Your task to perform on an android device: check data usage Image 0: 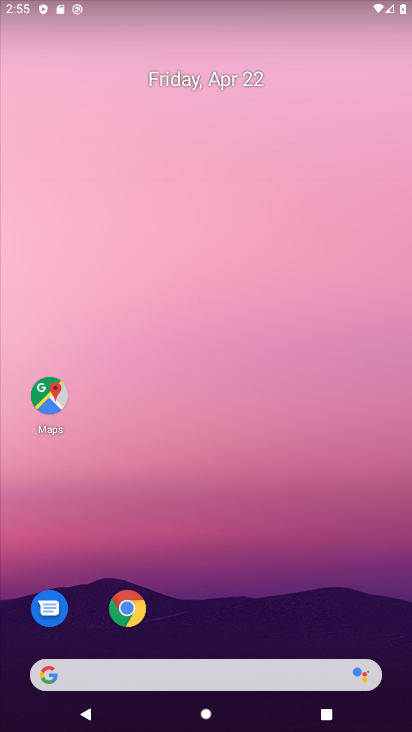
Step 0: drag from (267, 593) to (235, 39)
Your task to perform on an android device: check data usage Image 1: 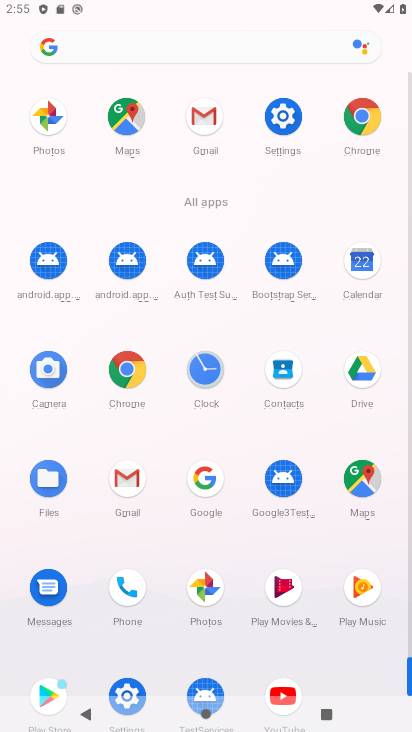
Step 1: drag from (159, 568) to (161, 295)
Your task to perform on an android device: check data usage Image 2: 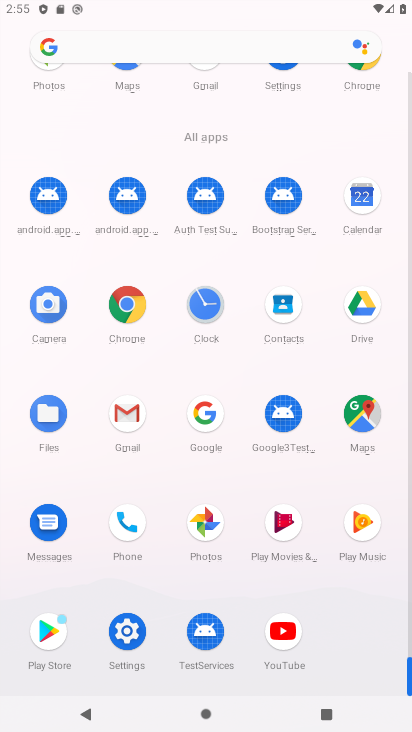
Step 2: click (123, 630)
Your task to perform on an android device: check data usage Image 3: 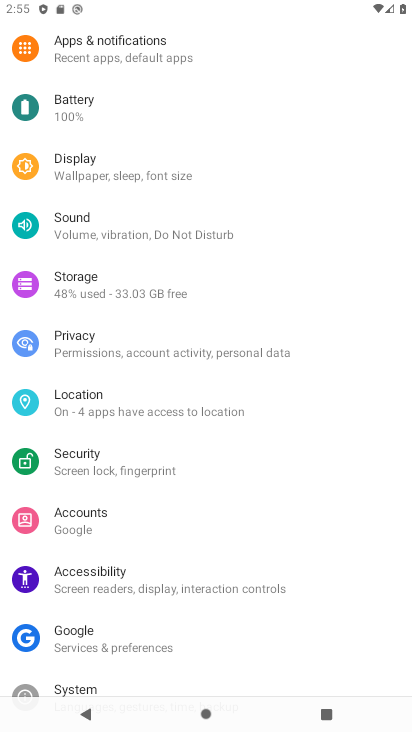
Step 3: drag from (159, 125) to (128, 641)
Your task to perform on an android device: check data usage Image 4: 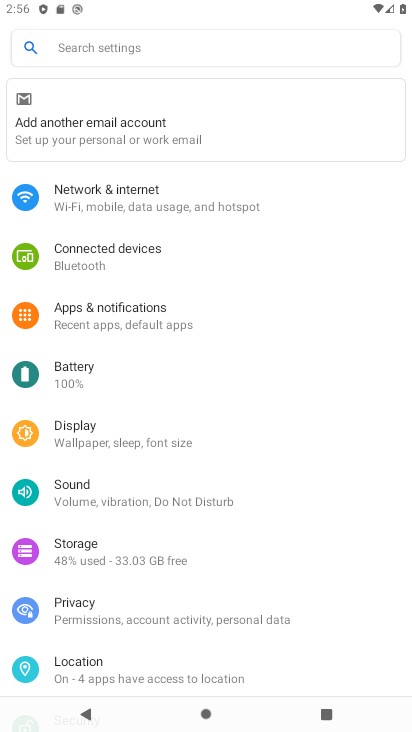
Step 4: click (96, 187)
Your task to perform on an android device: check data usage Image 5: 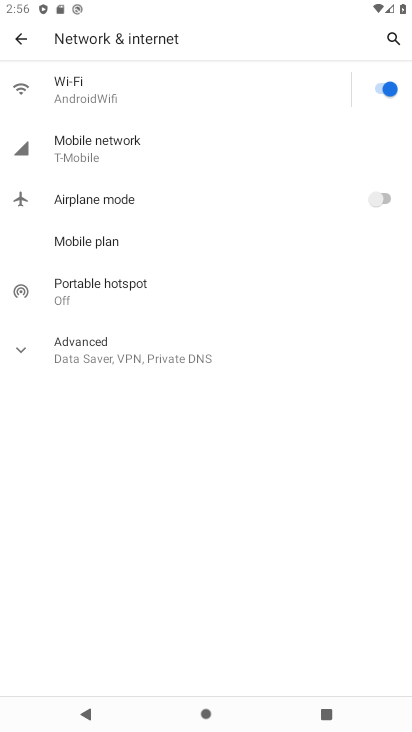
Step 5: click (114, 148)
Your task to perform on an android device: check data usage Image 6: 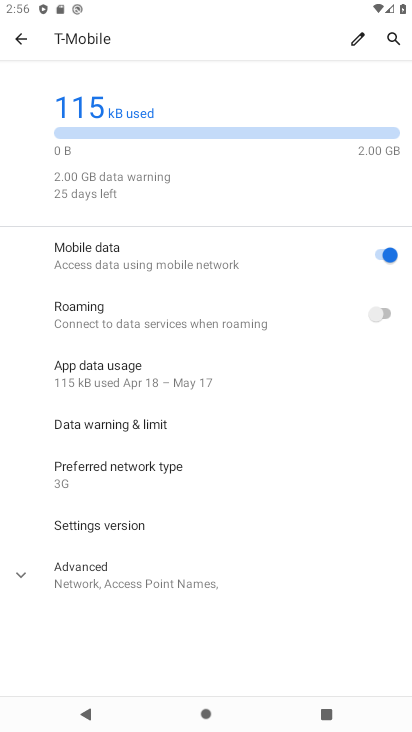
Step 6: task complete